Your task to perform on an android device: turn on notifications settings in the gmail app Image 0: 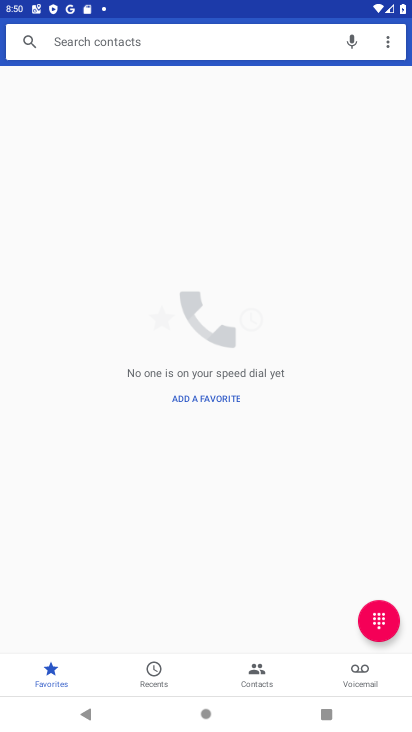
Step 0: press home button
Your task to perform on an android device: turn on notifications settings in the gmail app Image 1: 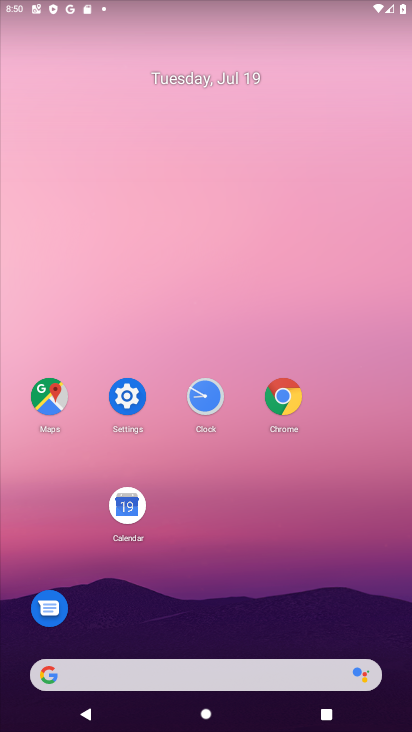
Step 1: drag from (403, 717) to (319, 48)
Your task to perform on an android device: turn on notifications settings in the gmail app Image 2: 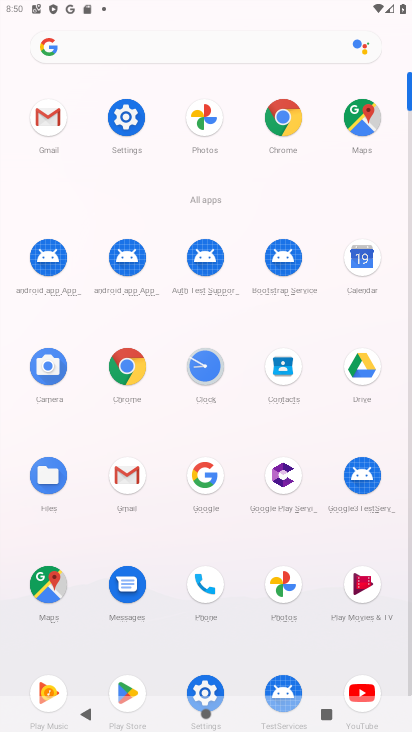
Step 2: click (128, 483)
Your task to perform on an android device: turn on notifications settings in the gmail app Image 3: 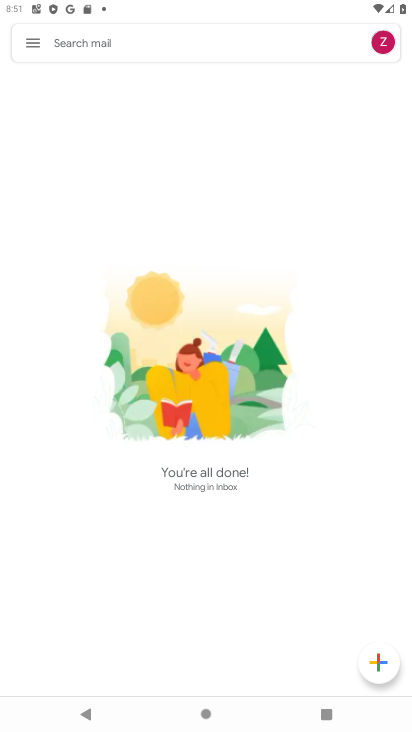
Step 3: click (35, 49)
Your task to perform on an android device: turn on notifications settings in the gmail app Image 4: 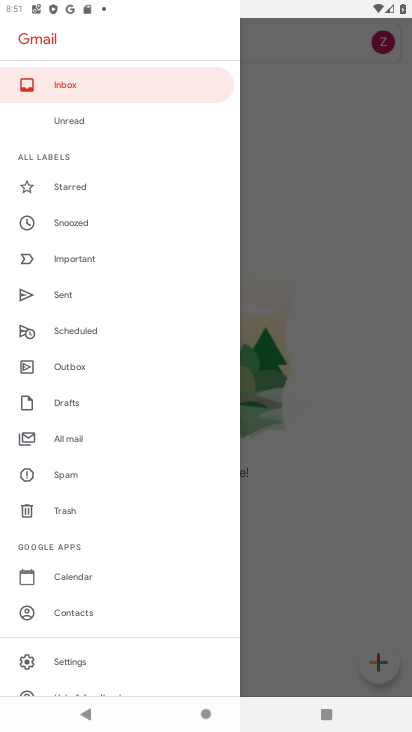
Step 4: click (64, 652)
Your task to perform on an android device: turn on notifications settings in the gmail app Image 5: 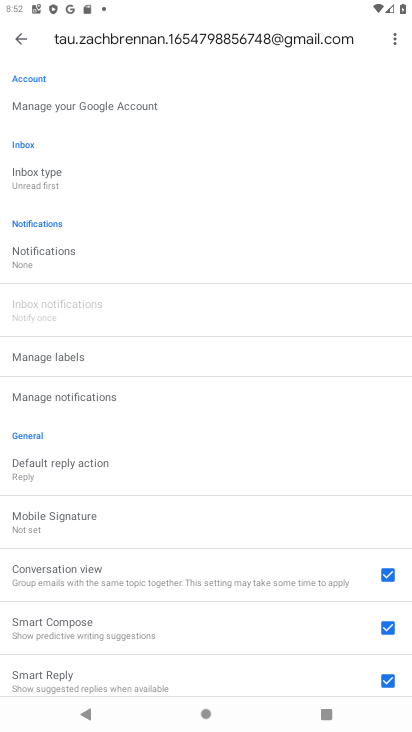
Step 5: click (40, 252)
Your task to perform on an android device: turn on notifications settings in the gmail app Image 6: 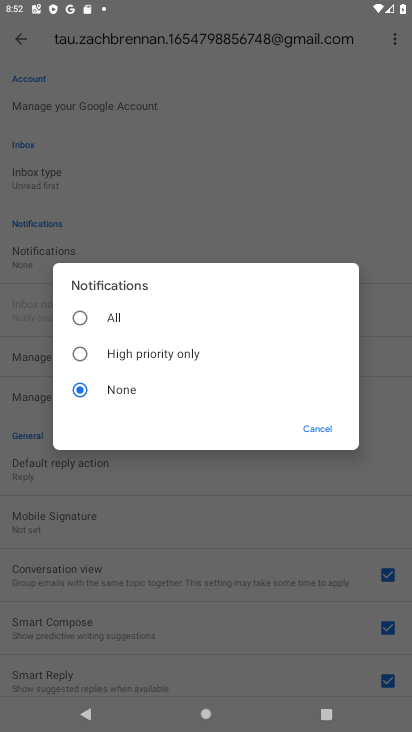
Step 6: click (78, 317)
Your task to perform on an android device: turn on notifications settings in the gmail app Image 7: 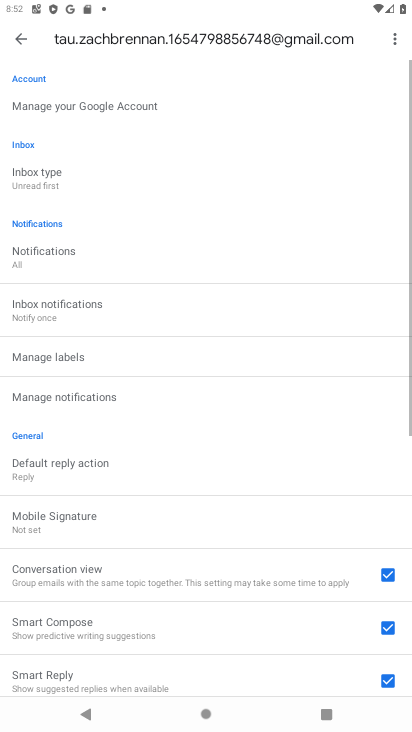
Step 7: task complete